Your task to perform on an android device: Show me popular games on the Play Store Image 0: 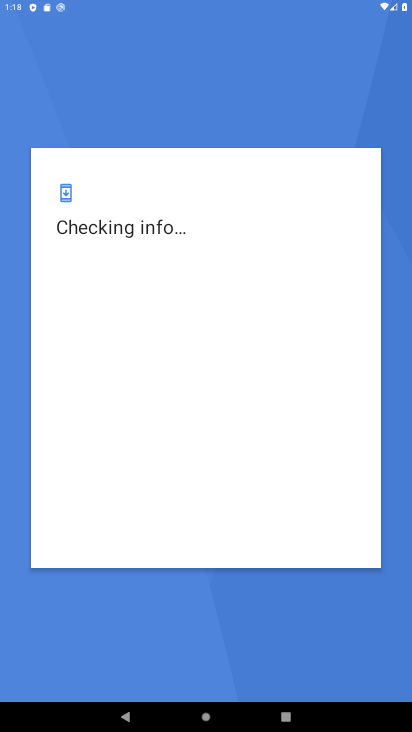
Step 0: press home button
Your task to perform on an android device: Show me popular games on the Play Store Image 1: 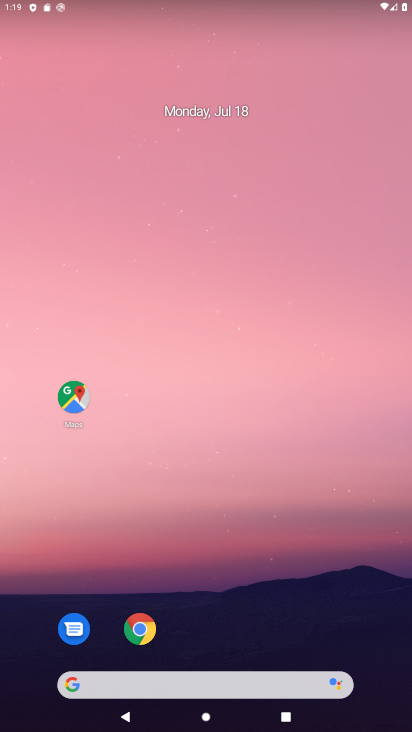
Step 1: drag from (232, 519) to (222, 196)
Your task to perform on an android device: Show me popular games on the Play Store Image 2: 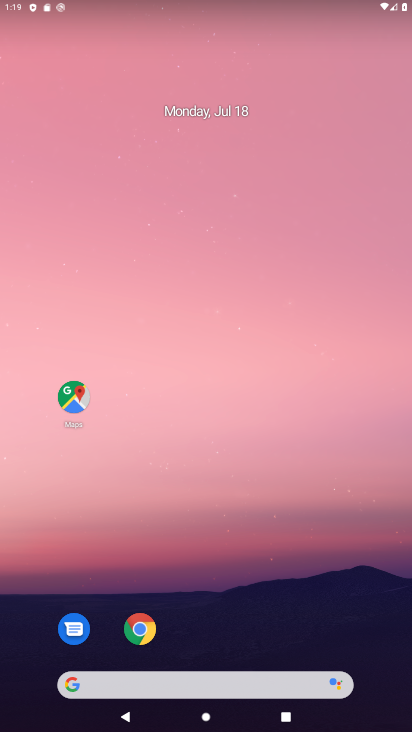
Step 2: drag from (245, 575) to (259, 89)
Your task to perform on an android device: Show me popular games on the Play Store Image 3: 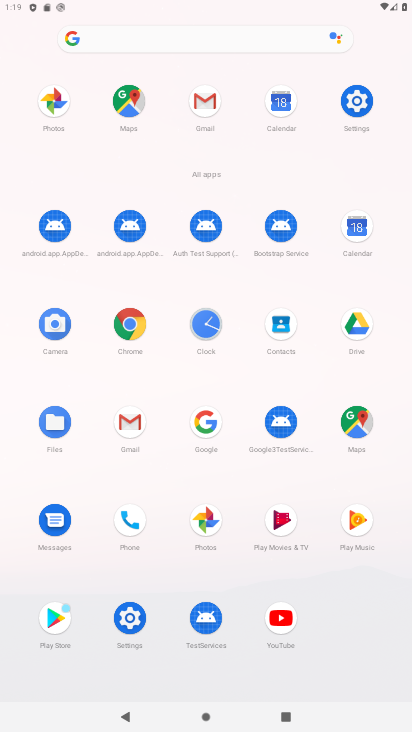
Step 3: click (46, 614)
Your task to perform on an android device: Show me popular games on the Play Store Image 4: 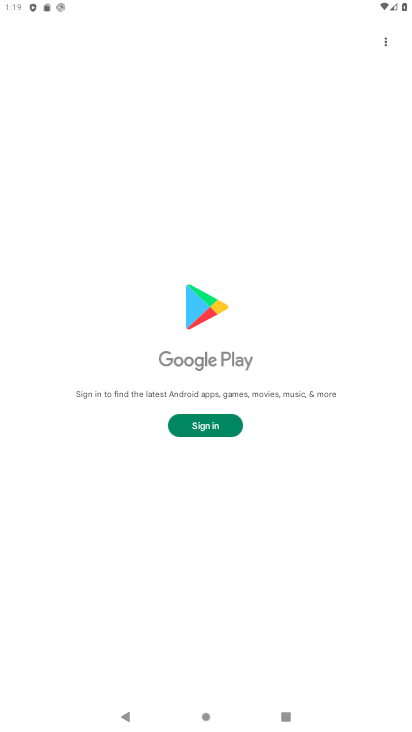
Step 4: click (195, 431)
Your task to perform on an android device: Show me popular games on the Play Store Image 5: 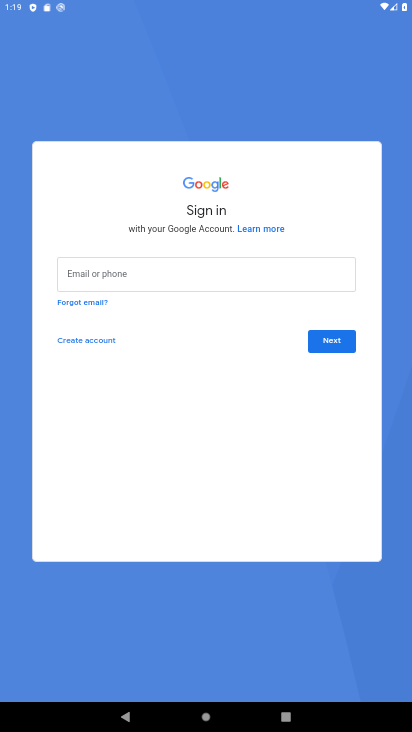
Step 5: press home button
Your task to perform on an android device: Show me popular games on the Play Store Image 6: 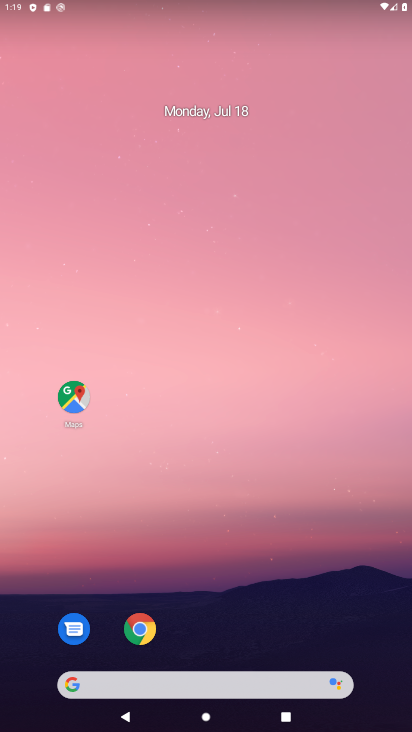
Step 6: drag from (213, 599) to (185, 284)
Your task to perform on an android device: Show me popular games on the Play Store Image 7: 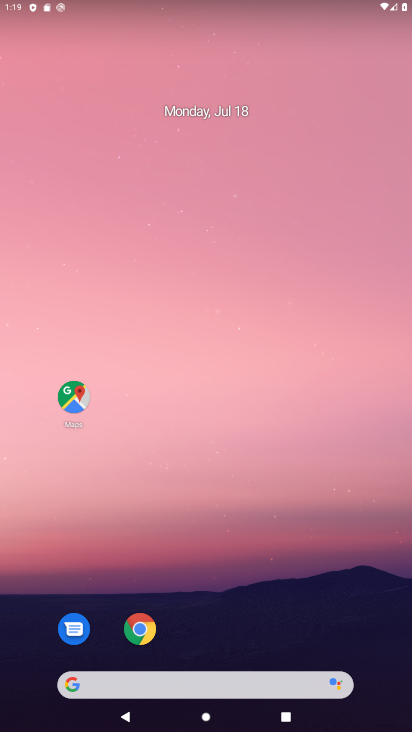
Step 7: drag from (262, 508) to (238, 62)
Your task to perform on an android device: Show me popular games on the Play Store Image 8: 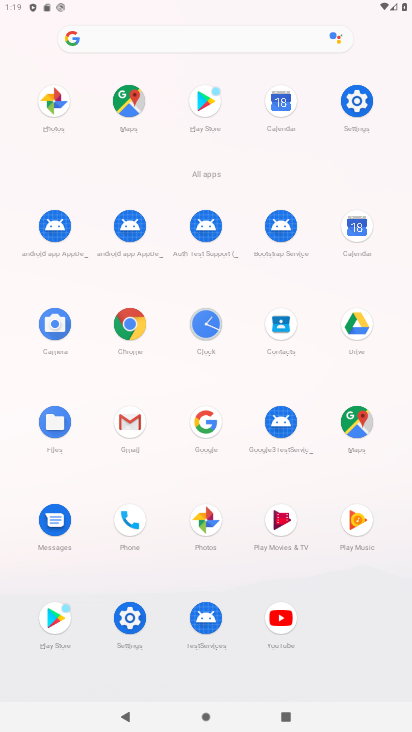
Step 8: click (201, 101)
Your task to perform on an android device: Show me popular games on the Play Store Image 9: 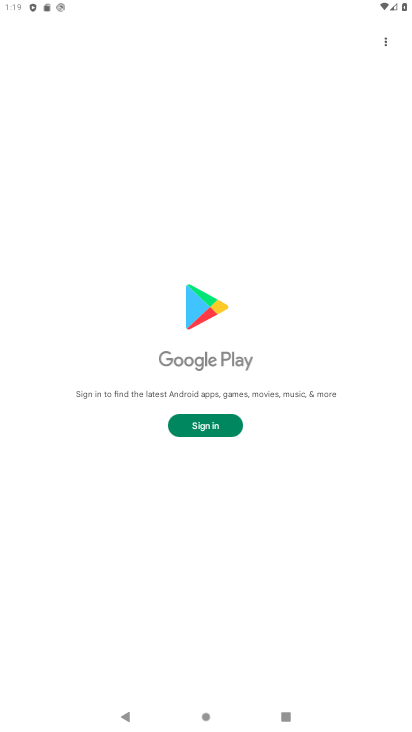
Step 9: task complete